Your task to perform on an android device: Go to battery settings Image 0: 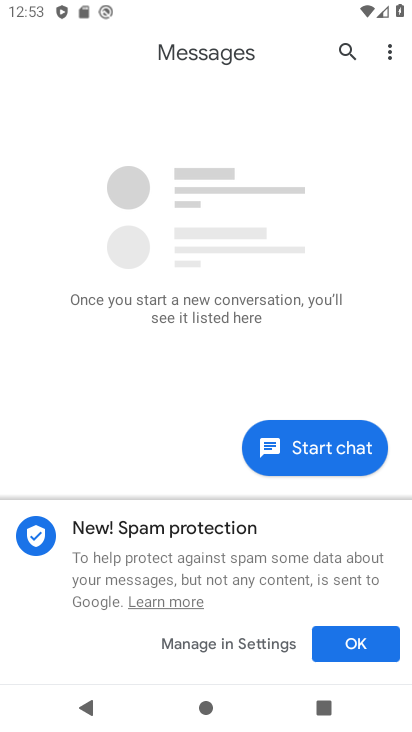
Step 0: press home button
Your task to perform on an android device: Go to battery settings Image 1: 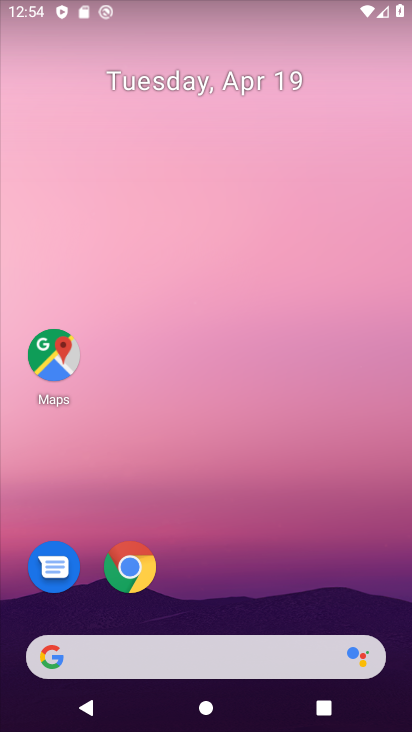
Step 1: drag from (380, 497) to (353, 158)
Your task to perform on an android device: Go to battery settings Image 2: 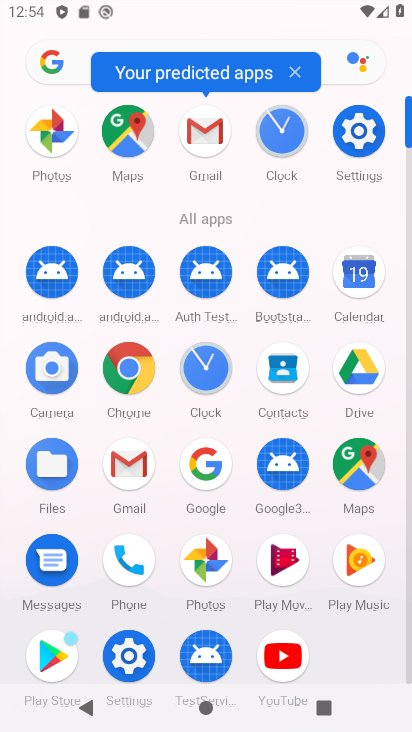
Step 2: click (406, 663)
Your task to perform on an android device: Go to battery settings Image 3: 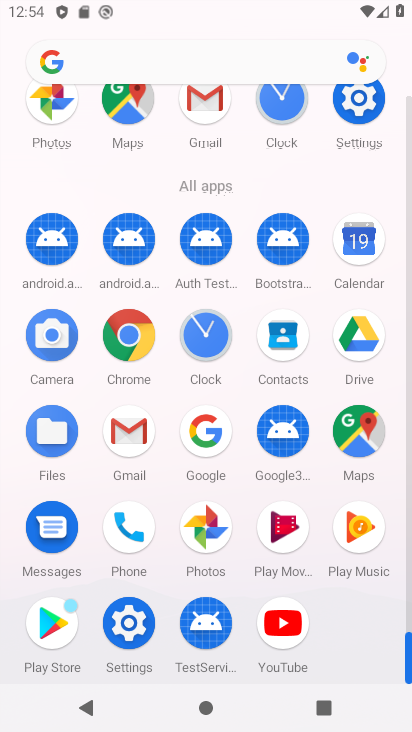
Step 3: click (125, 620)
Your task to perform on an android device: Go to battery settings Image 4: 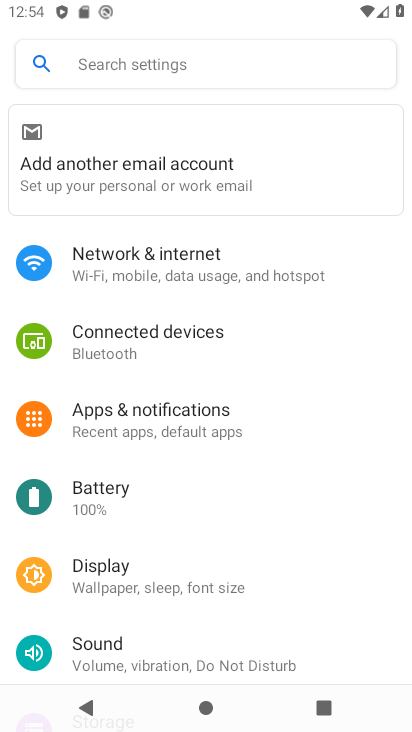
Step 4: click (89, 482)
Your task to perform on an android device: Go to battery settings Image 5: 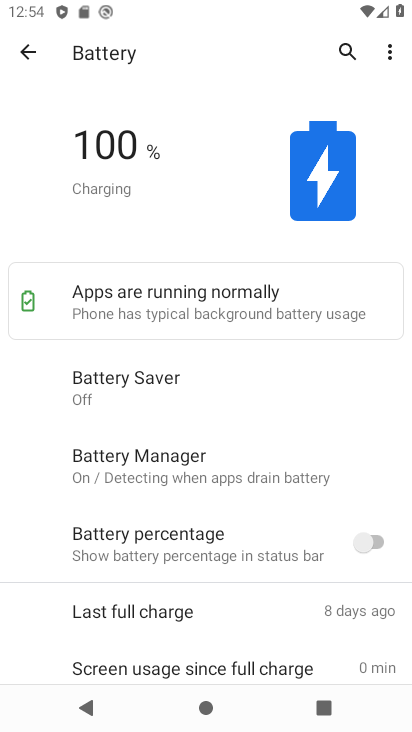
Step 5: drag from (258, 585) to (277, 277)
Your task to perform on an android device: Go to battery settings Image 6: 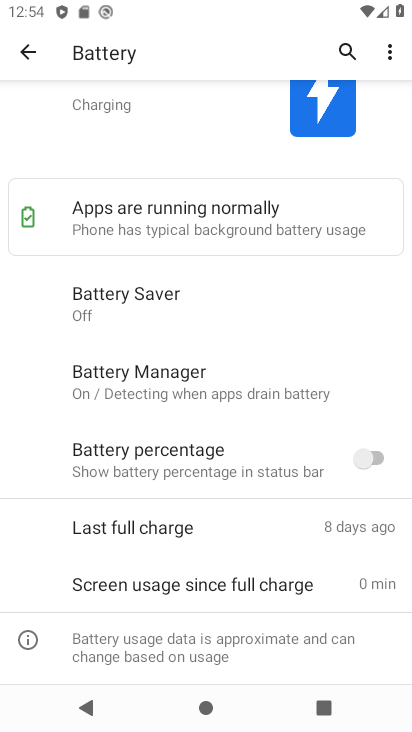
Step 6: drag from (224, 536) to (287, 150)
Your task to perform on an android device: Go to battery settings Image 7: 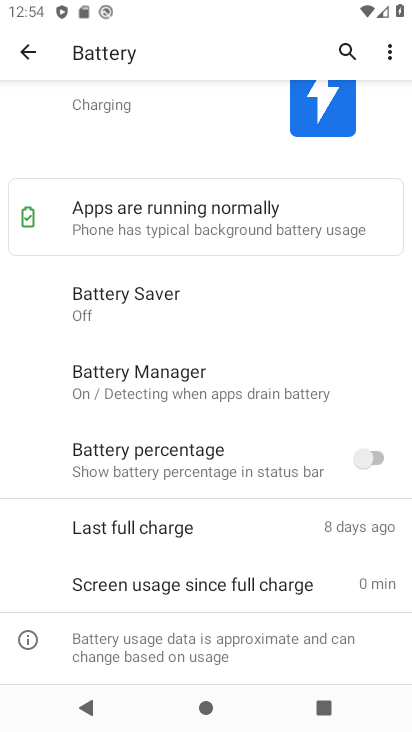
Step 7: click (389, 53)
Your task to perform on an android device: Go to battery settings Image 8: 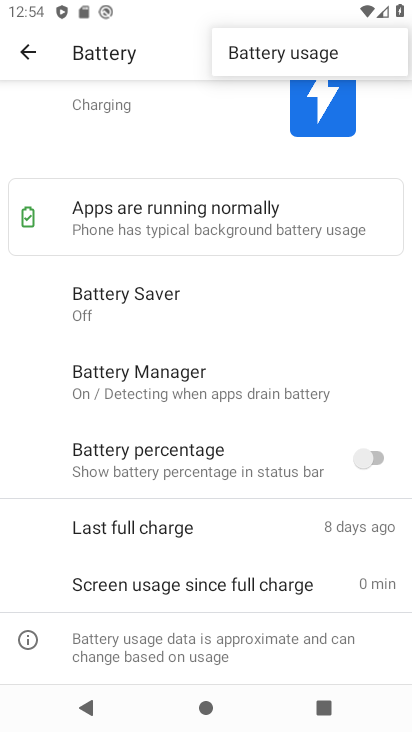
Step 8: task complete